Your task to perform on an android device: turn off sleep mode Image 0: 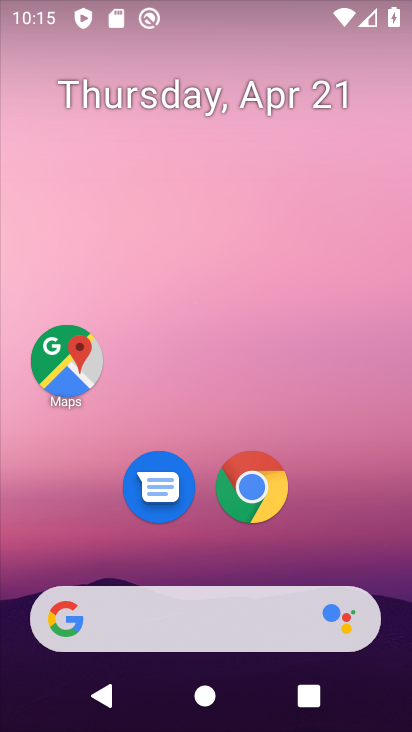
Step 0: drag from (360, 523) to (355, 111)
Your task to perform on an android device: turn off sleep mode Image 1: 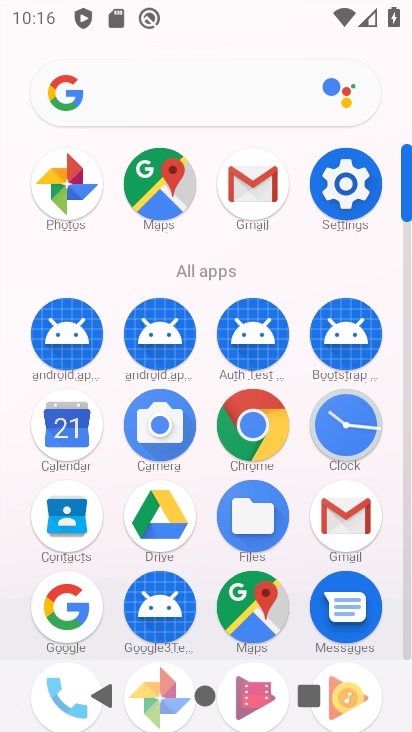
Step 1: click (328, 185)
Your task to perform on an android device: turn off sleep mode Image 2: 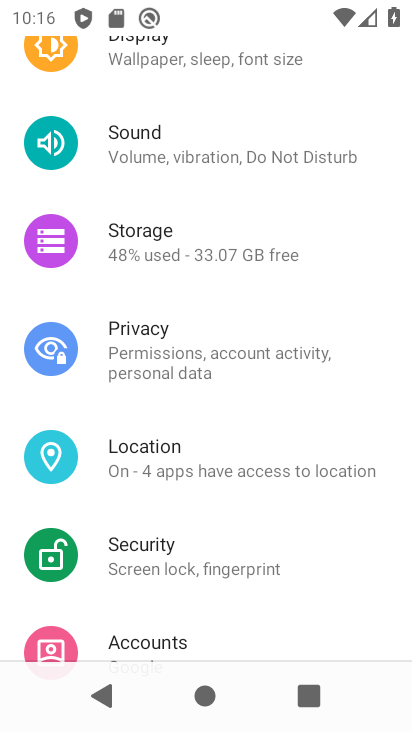
Step 2: drag from (258, 122) to (242, 534)
Your task to perform on an android device: turn off sleep mode Image 3: 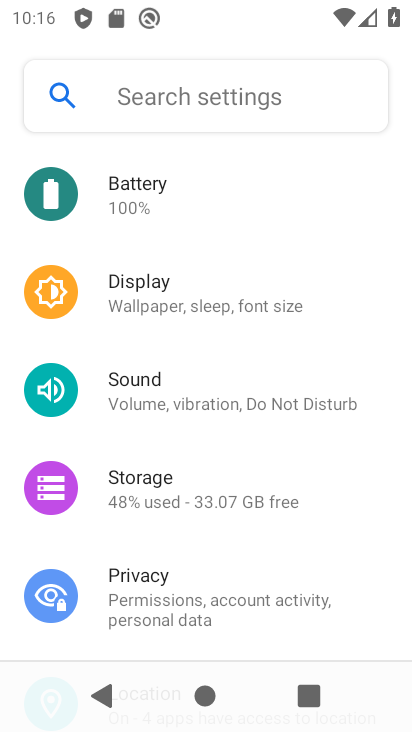
Step 3: click (199, 85)
Your task to perform on an android device: turn off sleep mode Image 4: 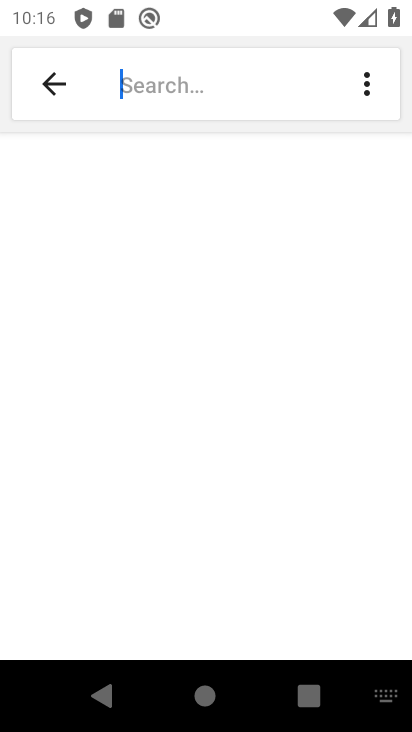
Step 4: type "sleep mode"
Your task to perform on an android device: turn off sleep mode Image 5: 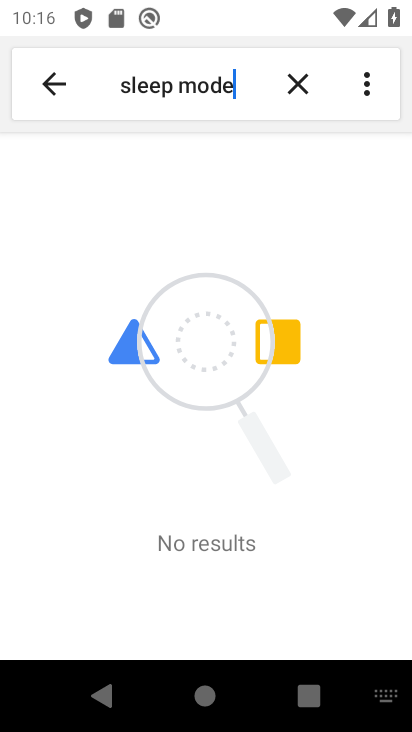
Step 5: task complete